Your task to perform on an android device: Go to wifi settings Image 0: 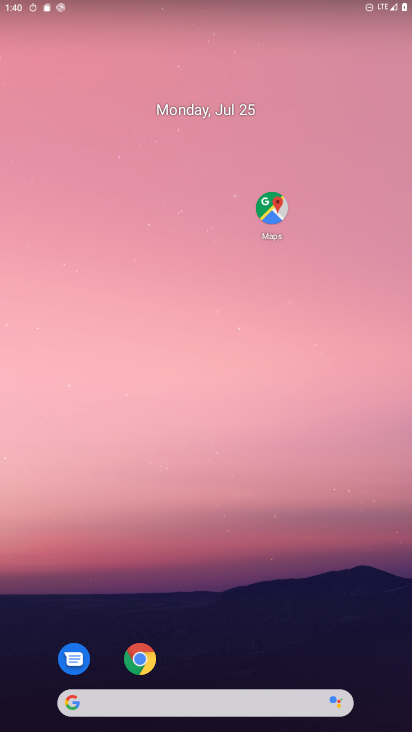
Step 0: drag from (107, 538) to (173, 214)
Your task to perform on an android device: Go to wifi settings Image 1: 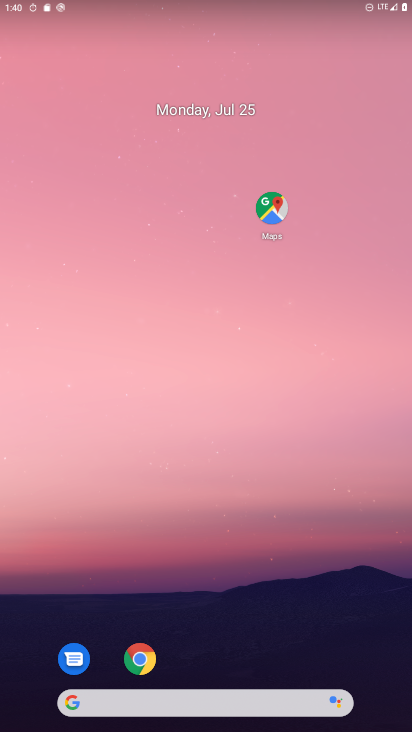
Step 1: click (214, 198)
Your task to perform on an android device: Go to wifi settings Image 2: 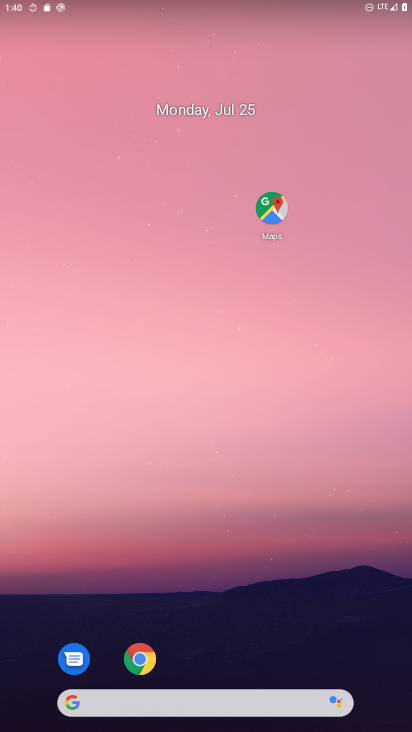
Step 2: drag from (30, 632) to (323, 7)
Your task to perform on an android device: Go to wifi settings Image 3: 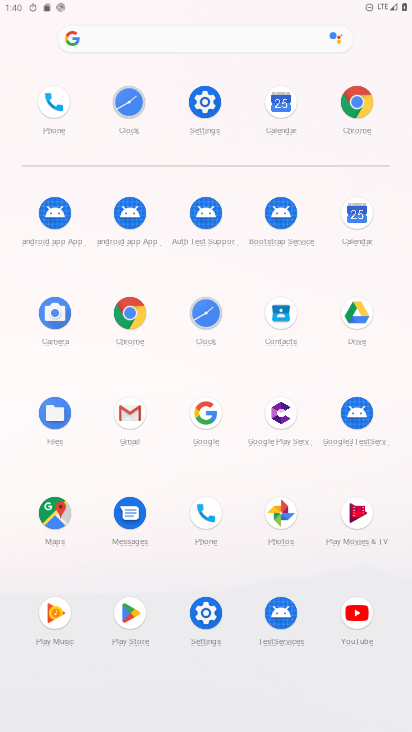
Step 3: click (205, 620)
Your task to perform on an android device: Go to wifi settings Image 4: 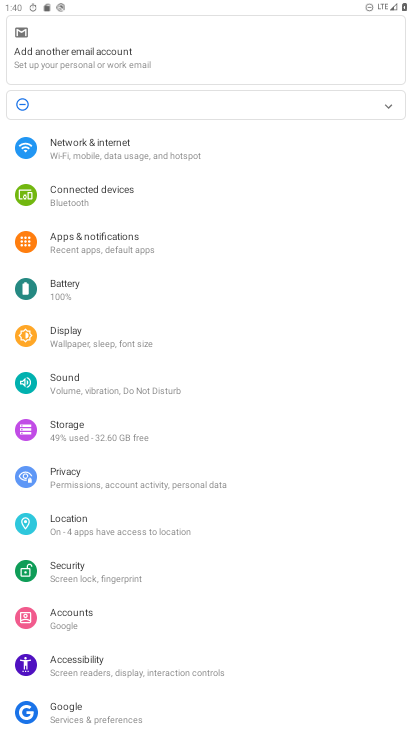
Step 4: click (95, 155)
Your task to perform on an android device: Go to wifi settings Image 5: 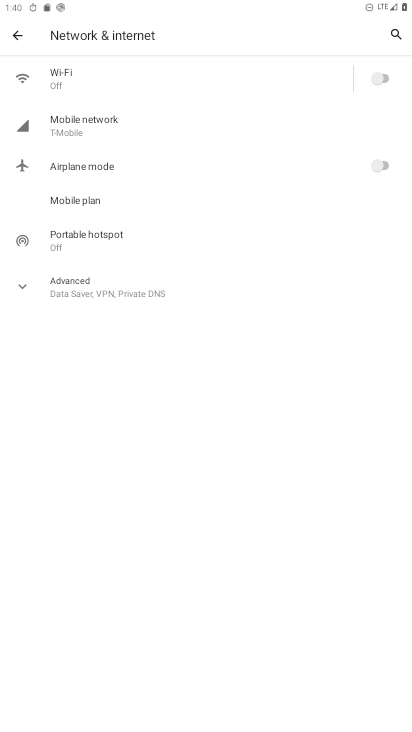
Step 5: click (113, 83)
Your task to perform on an android device: Go to wifi settings Image 6: 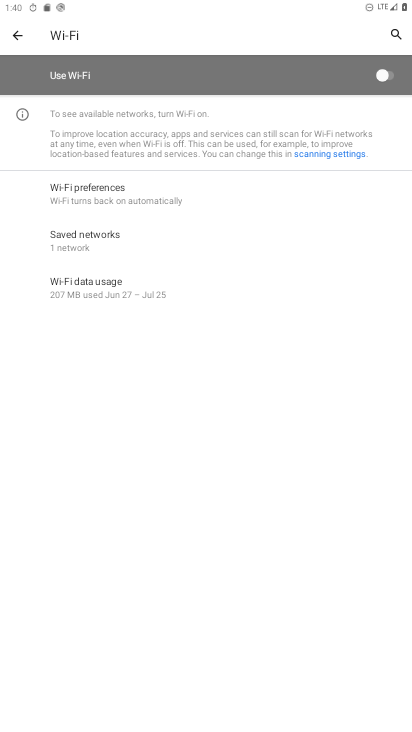
Step 6: task complete